Your task to perform on an android device: Open settings on Google Maps Image 0: 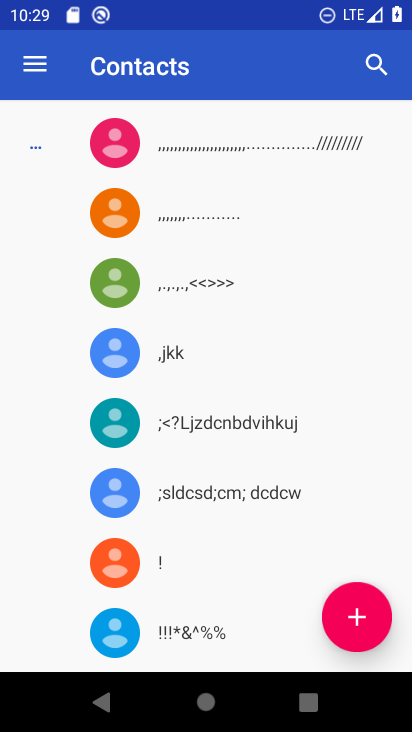
Step 0: press home button
Your task to perform on an android device: Open settings on Google Maps Image 1: 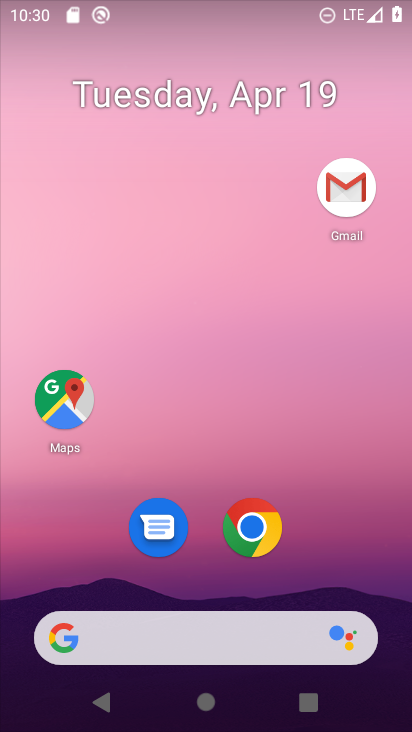
Step 1: drag from (353, 483) to (361, 108)
Your task to perform on an android device: Open settings on Google Maps Image 2: 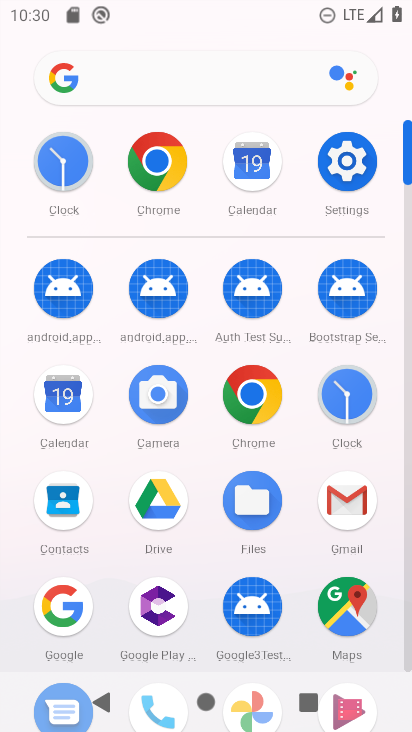
Step 2: click (354, 629)
Your task to perform on an android device: Open settings on Google Maps Image 3: 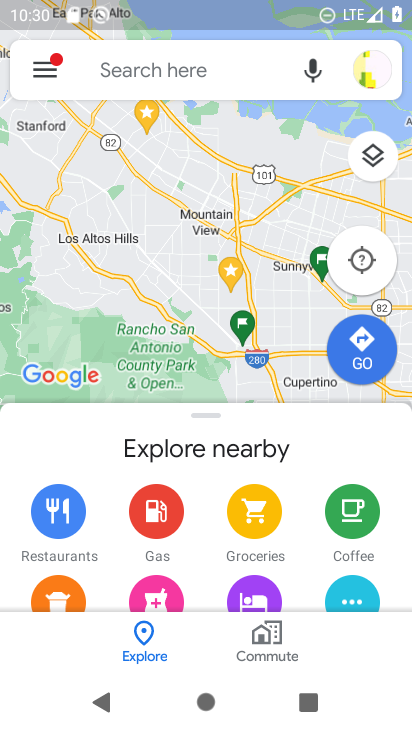
Step 3: click (36, 63)
Your task to perform on an android device: Open settings on Google Maps Image 4: 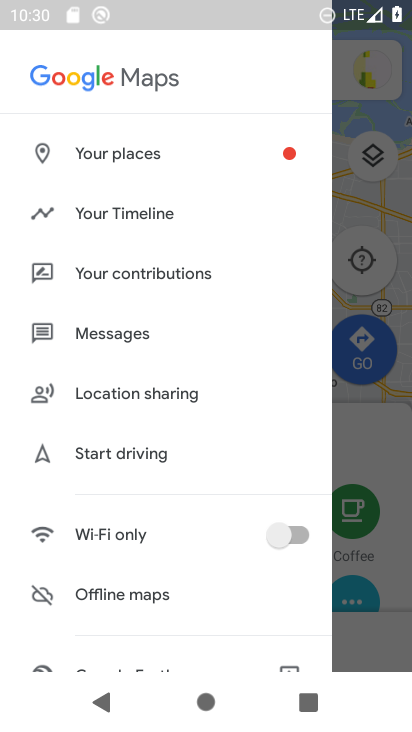
Step 4: click (96, 217)
Your task to perform on an android device: Open settings on Google Maps Image 5: 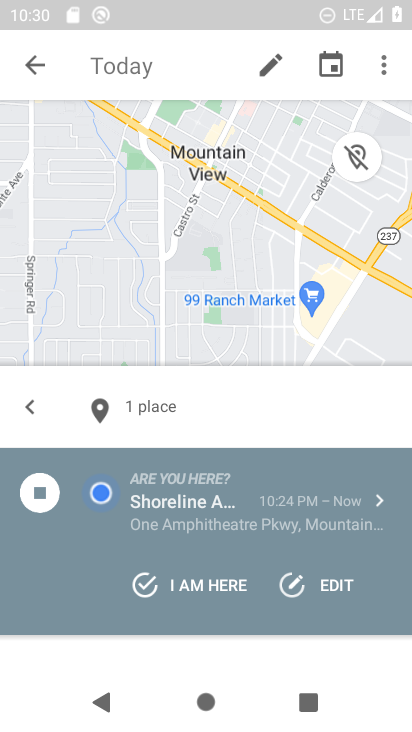
Step 5: click (384, 75)
Your task to perform on an android device: Open settings on Google Maps Image 6: 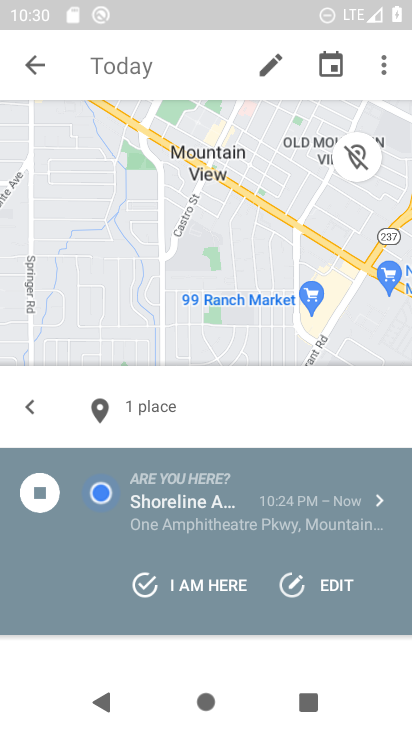
Step 6: click (385, 76)
Your task to perform on an android device: Open settings on Google Maps Image 7: 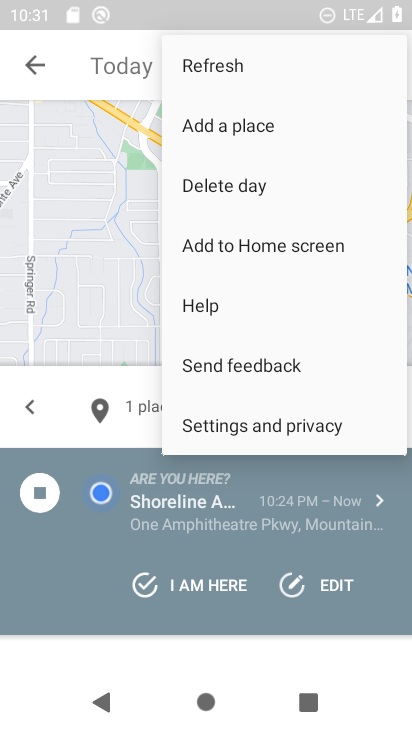
Step 7: click (246, 429)
Your task to perform on an android device: Open settings on Google Maps Image 8: 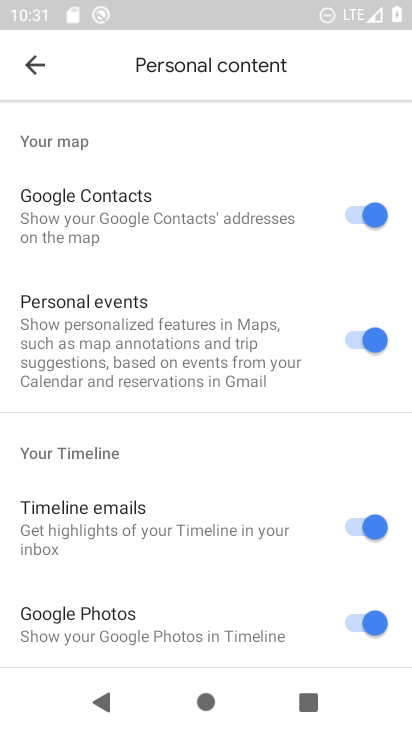
Step 8: drag from (200, 552) to (268, 229)
Your task to perform on an android device: Open settings on Google Maps Image 9: 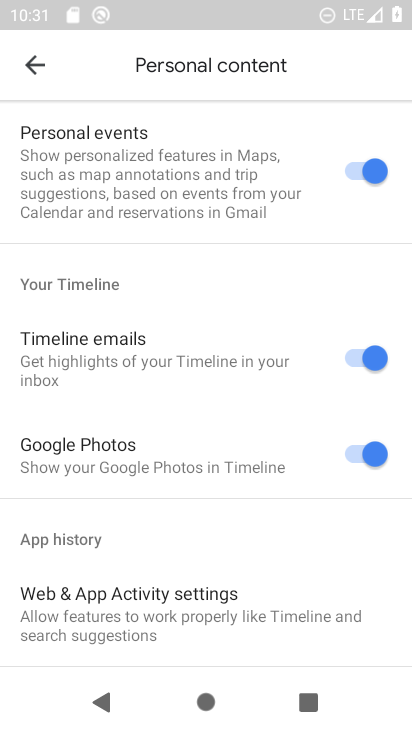
Step 9: click (212, 594)
Your task to perform on an android device: Open settings on Google Maps Image 10: 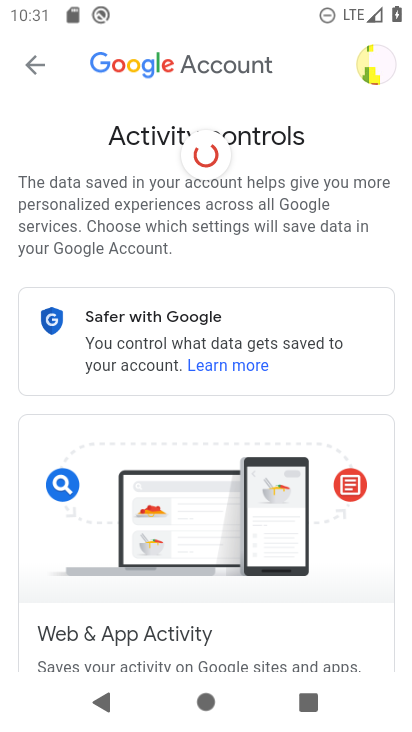
Step 10: task complete